Your task to perform on an android device: open a bookmark in the chrome app Image 0: 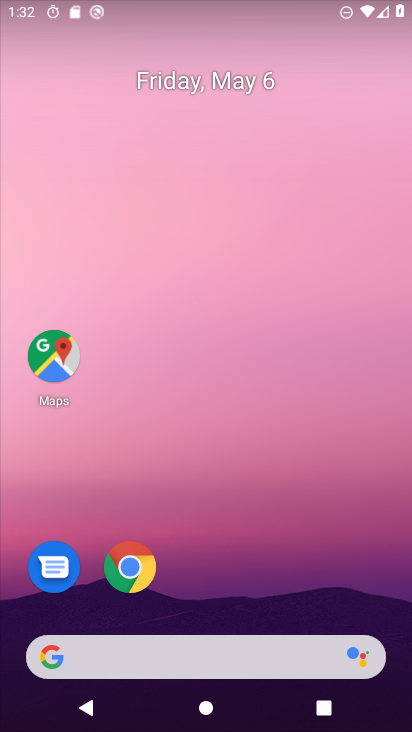
Step 0: click (140, 572)
Your task to perform on an android device: open a bookmark in the chrome app Image 1: 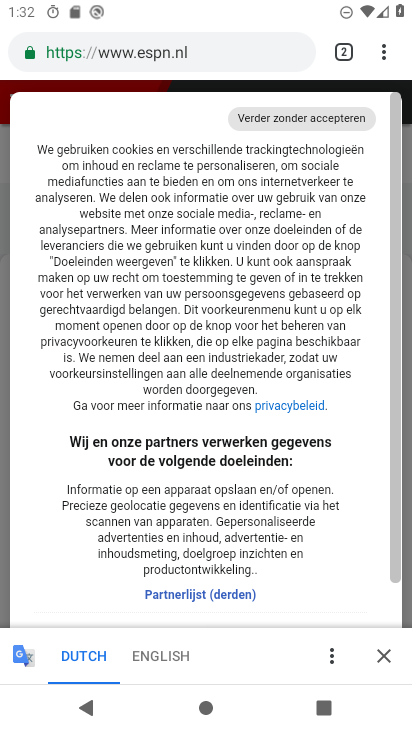
Step 1: drag from (386, 45) to (235, 194)
Your task to perform on an android device: open a bookmark in the chrome app Image 2: 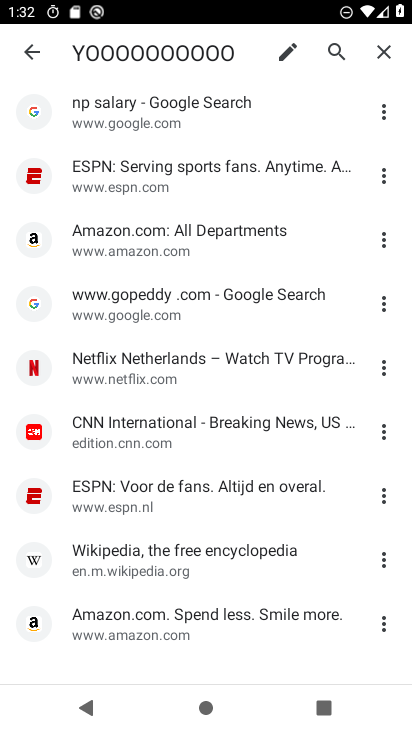
Step 2: click (128, 375)
Your task to perform on an android device: open a bookmark in the chrome app Image 3: 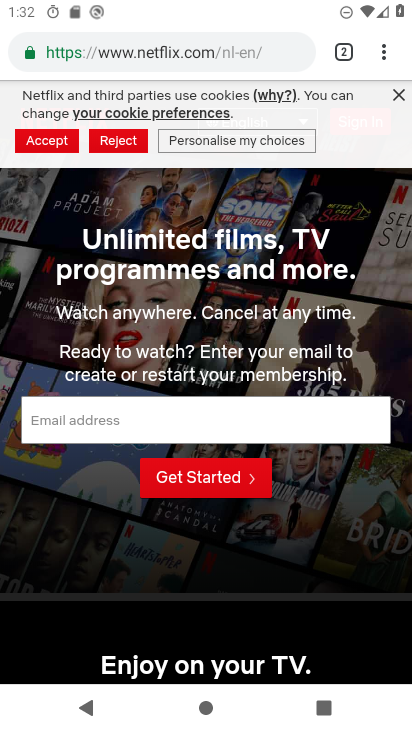
Step 3: task complete